Your task to perform on an android device: toggle translation in the chrome app Image 0: 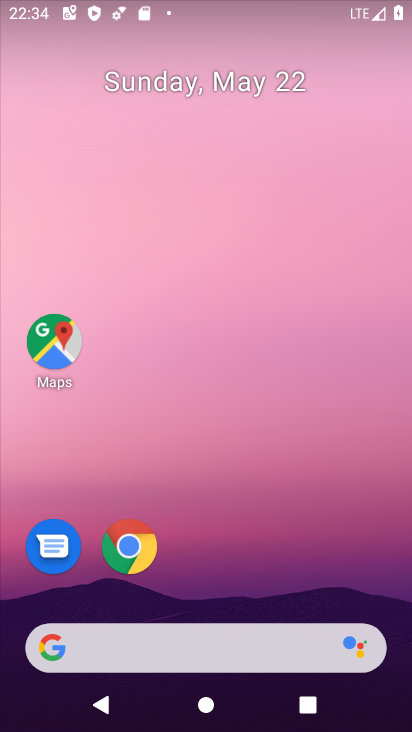
Step 0: drag from (210, 595) to (295, 51)
Your task to perform on an android device: toggle translation in the chrome app Image 1: 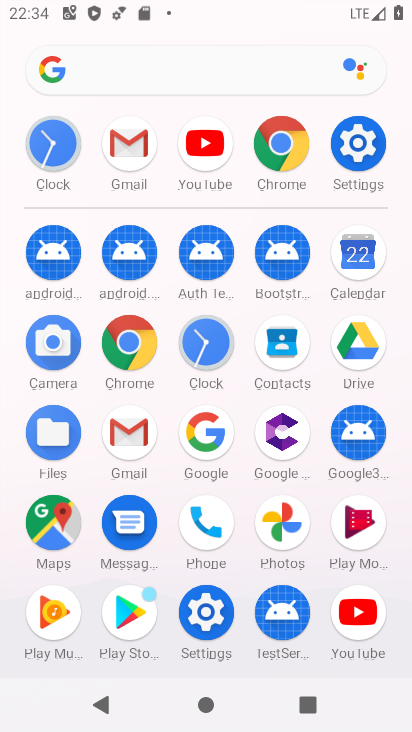
Step 1: click (291, 142)
Your task to perform on an android device: toggle translation in the chrome app Image 2: 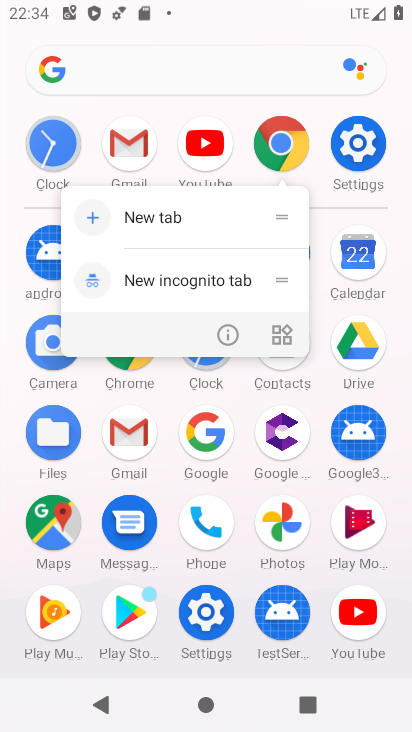
Step 2: click (227, 332)
Your task to perform on an android device: toggle translation in the chrome app Image 3: 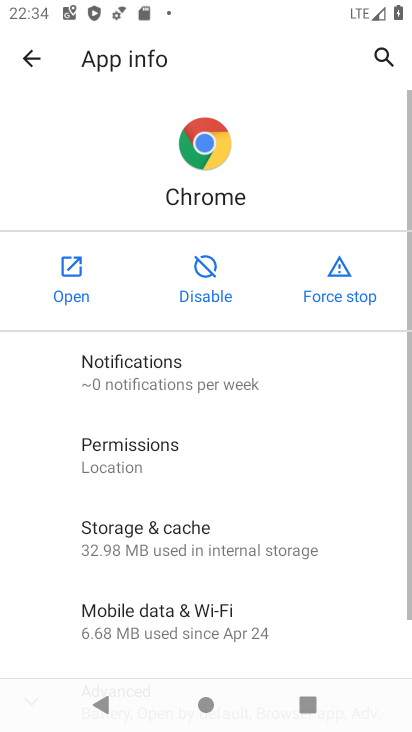
Step 3: click (82, 271)
Your task to perform on an android device: toggle translation in the chrome app Image 4: 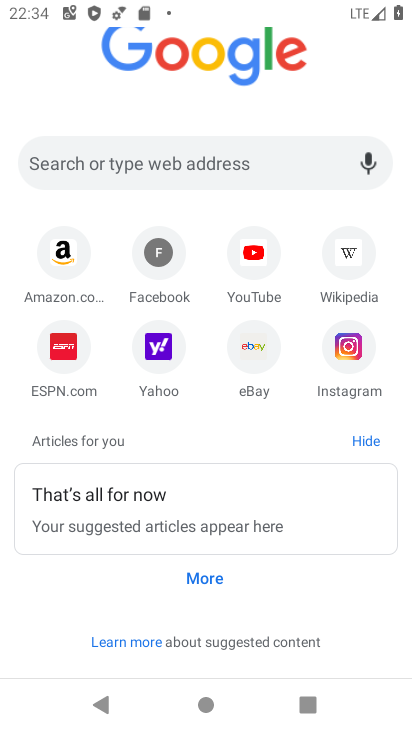
Step 4: drag from (218, 138) to (313, 669)
Your task to perform on an android device: toggle translation in the chrome app Image 5: 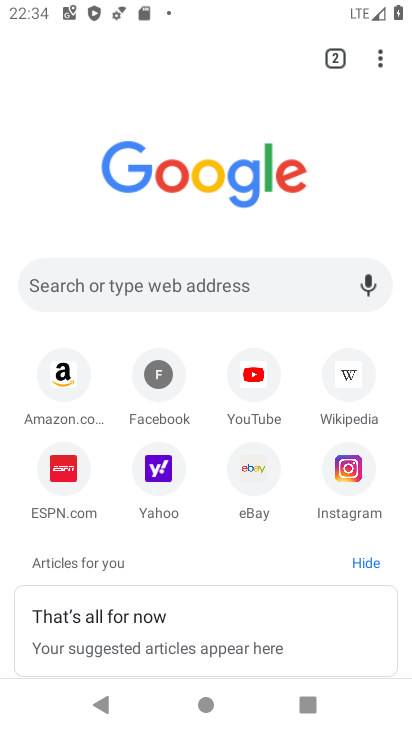
Step 5: click (373, 67)
Your task to perform on an android device: toggle translation in the chrome app Image 6: 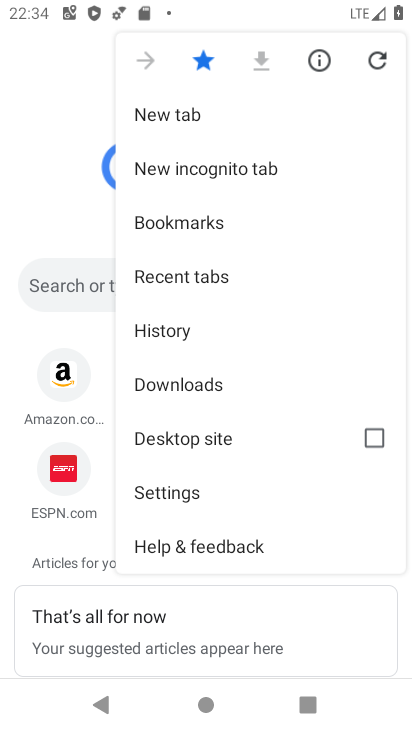
Step 6: drag from (258, 533) to (370, 26)
Your task to perform on an android device: toggle translation in the chrome app Image 7: 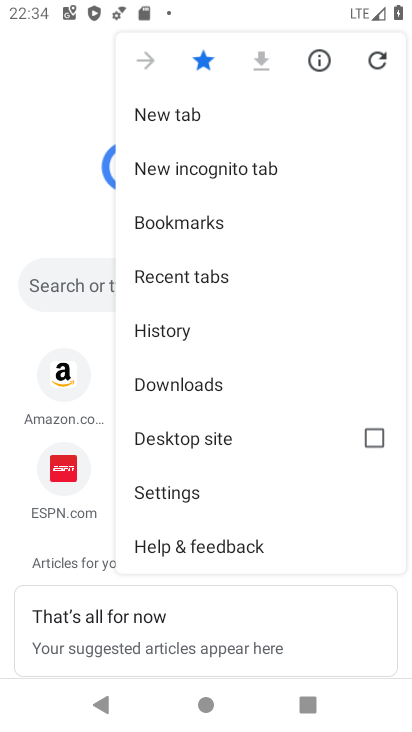
Step 7: click (192, 500)
Your task to perform on an android device: toggle translation in the chrome app Image 8: 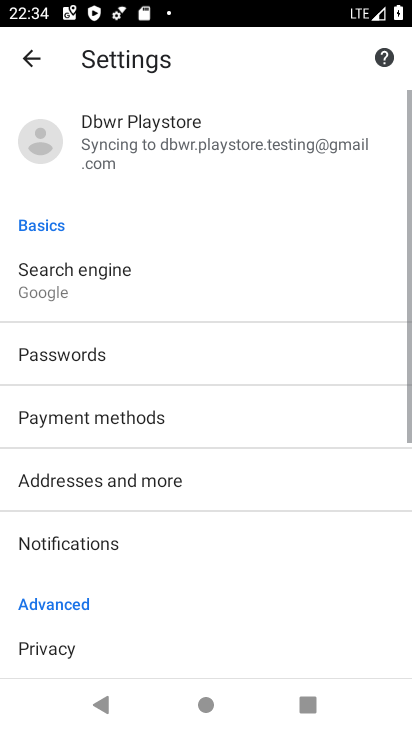
Step 8: drag from (206, 497) to (285, 29)
Your task to perform on an android device: toggle translation in the chrome app Image 9: 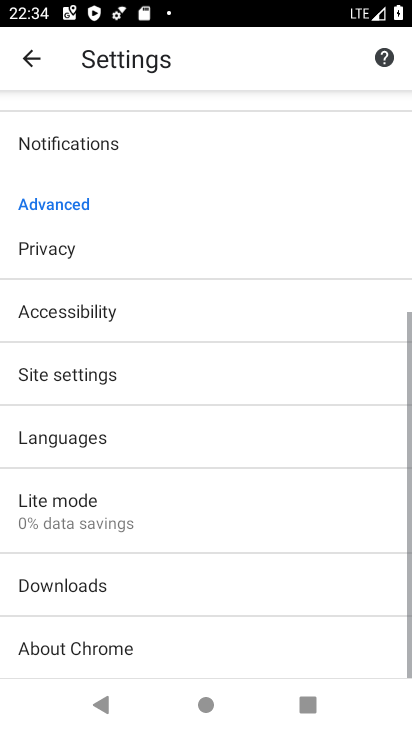
Step 9: drag from (154, 523) to (257, 258)
Your task to perform on an android device: toggle translation in the chrome app Image 10: 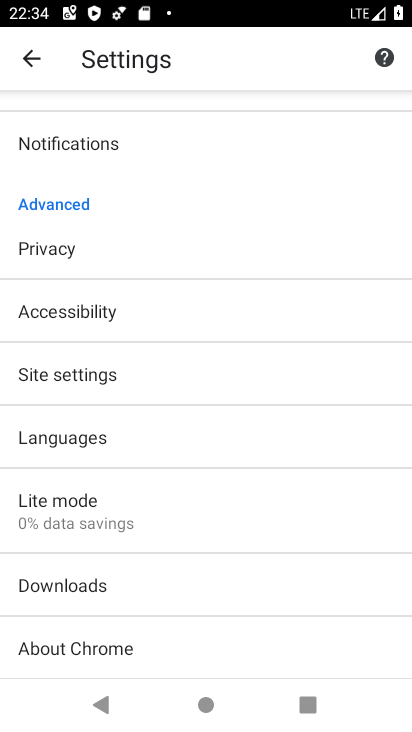
Step 10: click (80, 364)
Your task to perform on an android device: toggle translation in the chrome app Image 11: 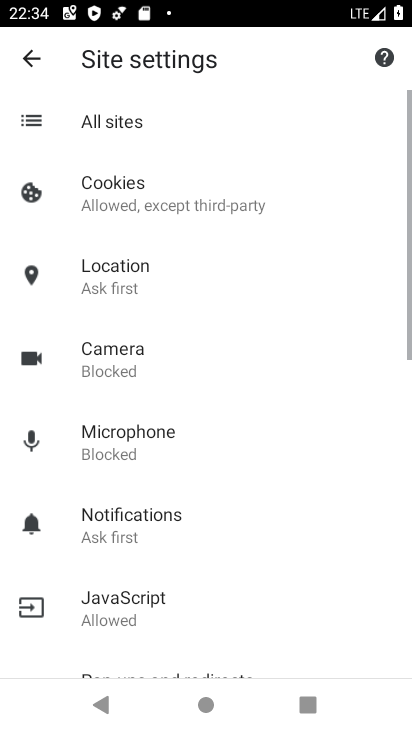
Step 11: drag from (185, 469) to (245, 283)
Your task to perform on an android device: toggle translation in the chrome app Image 12: 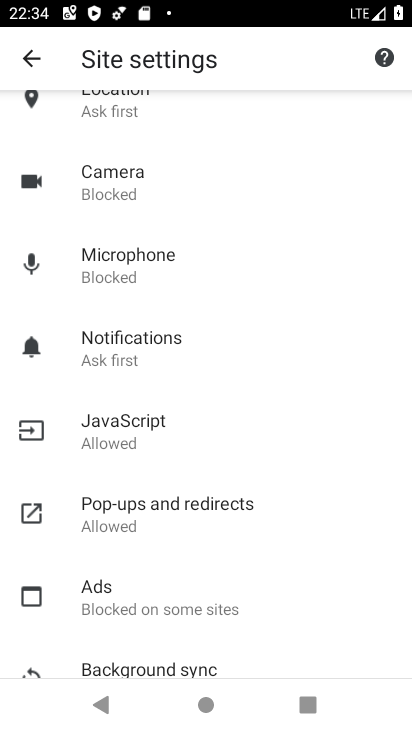
Step 12: drag from (144, 628) to (256, 196)
Your task to perform on an android device: toggle translation in the chrome app Image 13: 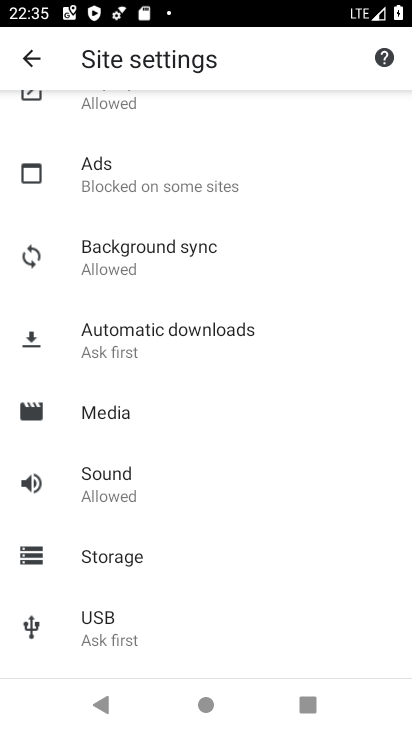
Step 13: drag from (243, 216) to (213, 666)
Your task to perform on an android device: toggle translation in the chrome app Image 14: 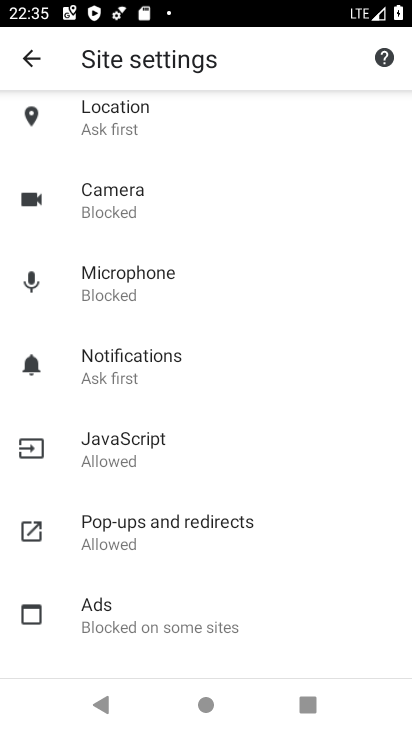
Step 14: drag from (109, 273) to (205, 671)
Your task to perform on an android device: toggle translation in the chrome app Image 15: 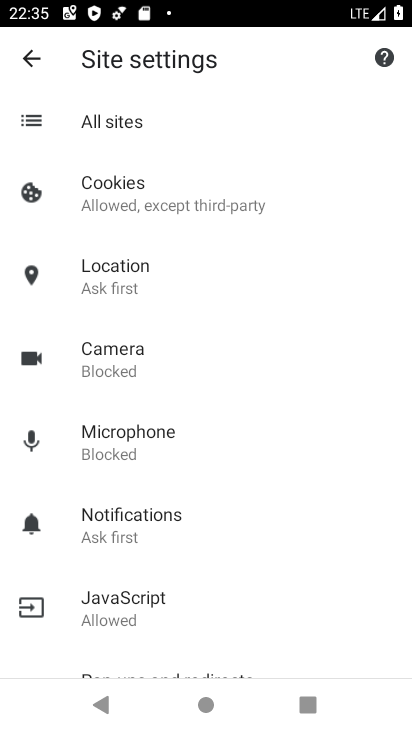
Step 15: click (45, 50)
Your task to perform on an android device: toggle translation in the chrome app Image 16: 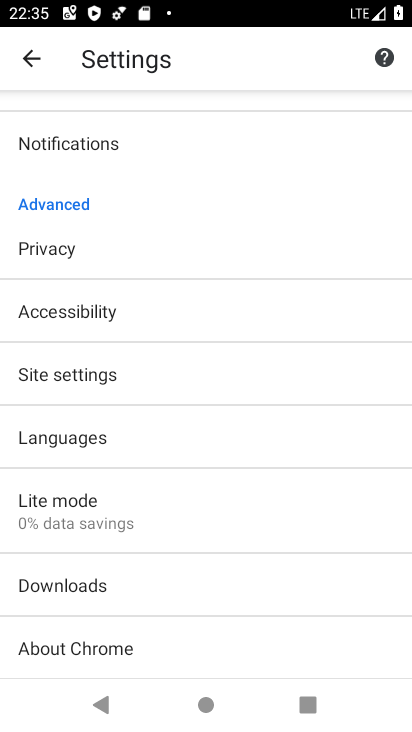
Step 16: drag from (190, 603) to (315, 142)
Your task to perform on an android device: toggle translation in the chrome app Image 17: 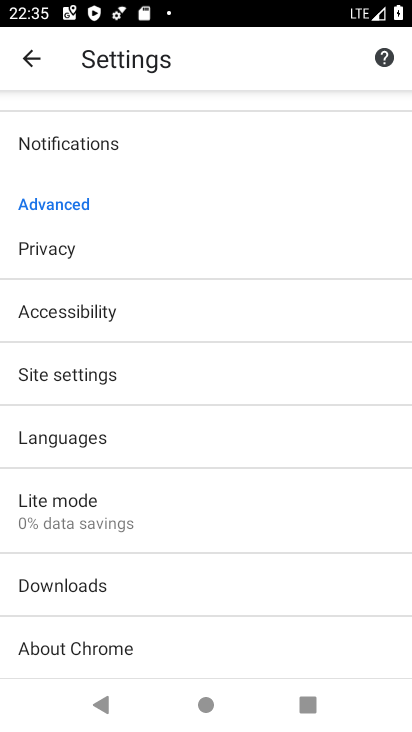
Step 17: click (85, 450)
Your task to perform on an android device: toggle translation in the chrome app Image 18: 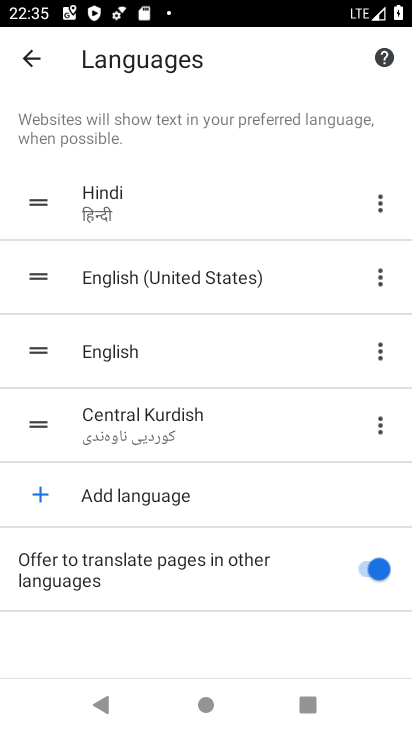
Step 18: click (357, 579)
Your task to perform on an android device: toggle translation in the chrome app Image 19: 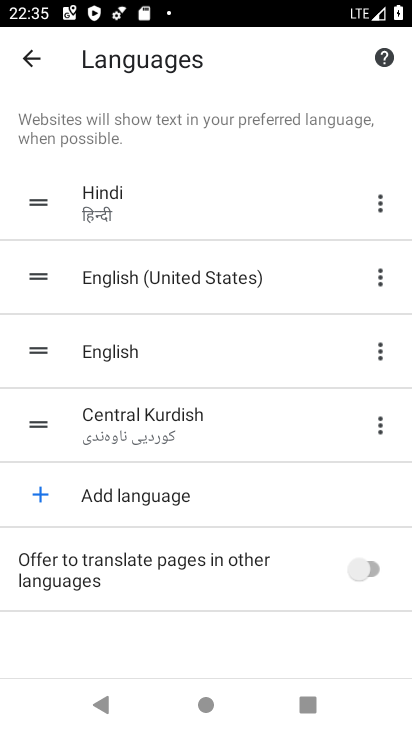
Step 19: task complete